Your task to perform on an android device: What's the weather today? Image 0: 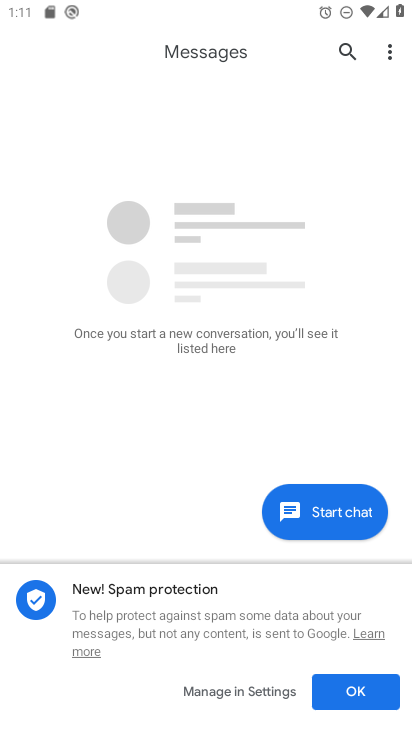
Step 0: press home button
Your task to perform on an android device: What's the weather today? Image 1: 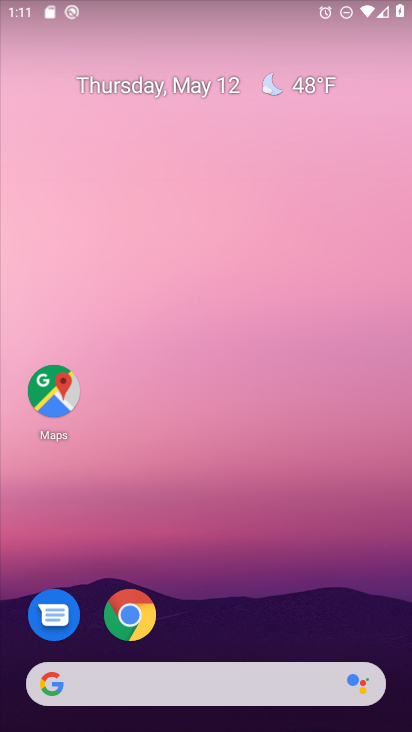
Step 1: drag from (295, 665) to (336, 6)
Your task to perform on an android device: What's the weather today? Image 2: 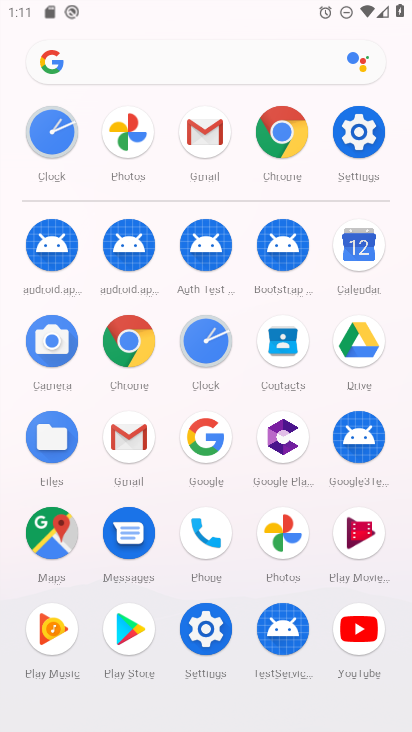
Step 2: click (137, 350)
Your task to perform on an android device: What's the weather today? Image 3: 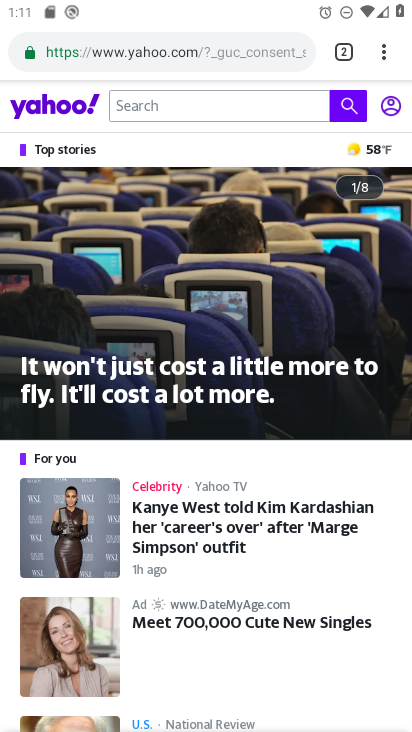
Step 3: click (214, 52)
Your task to perform on an android device: What's the weather today? Image 4: 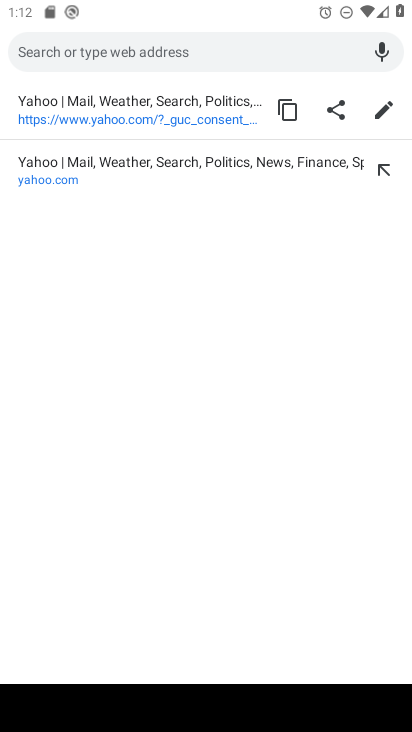
Step 4: type "weather today"
Your task to perform on an android device: What's the weather today? Image 5: 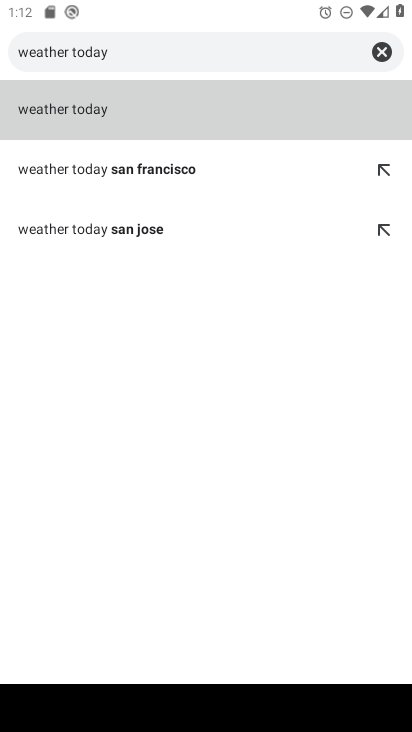
Step 5: click (196, 106)
Your task to perform on an android device: What's the weather today? Image 6: 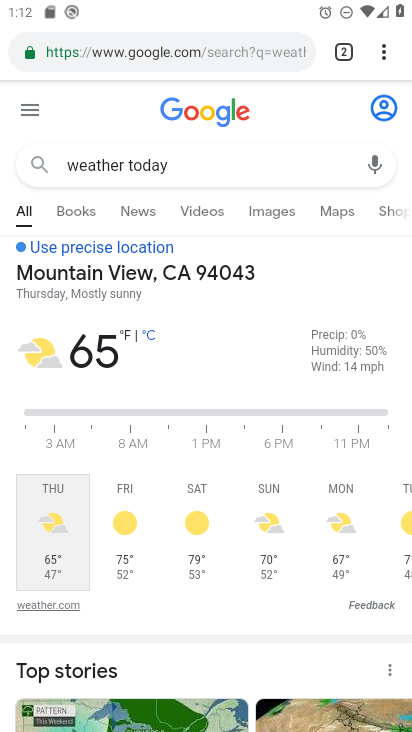
Step 6: task complete